Your task to perform on an android device: Open location settings Image 0: 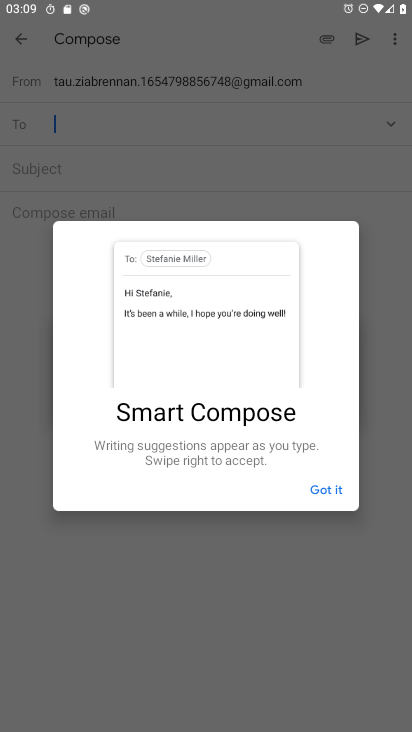
Step 0: press home button
Your task to perform on an android device: Open location settings Image 1: 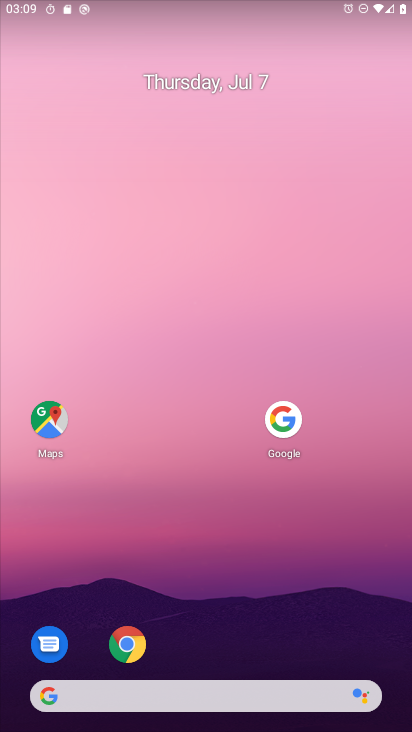
Step 1: drag from (182, 697) to (331, 92)
Your task to perform on an android device: Open location settings Image 2: 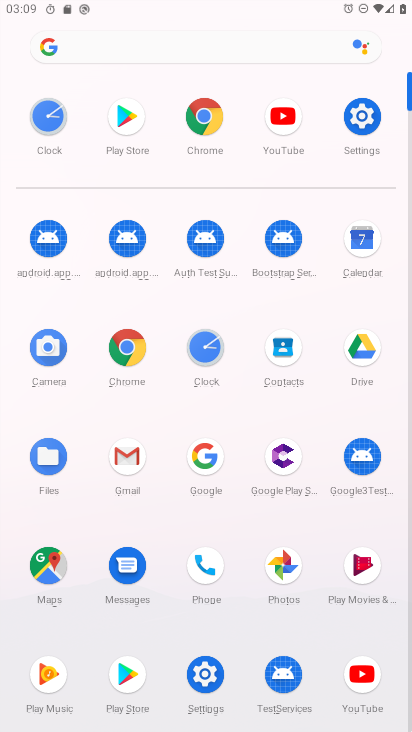
Step 2: click (359, 117)
Your task to perform on an android device: Open location settings Image 3: 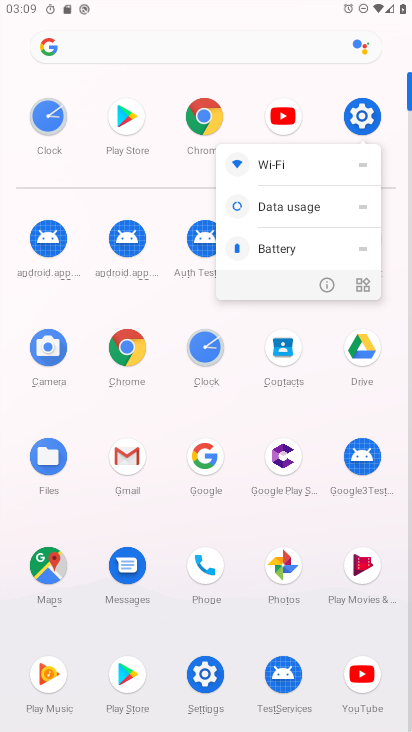
Step 3: click (365, 119)
Your task to perform on an android device: Open location settings Image 4: 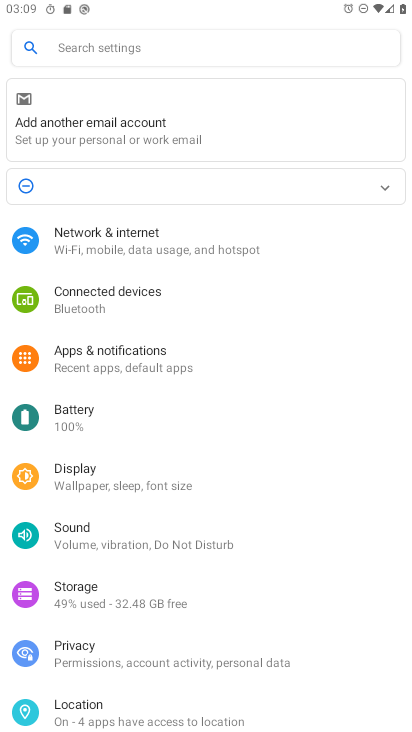
Step 4: drag from (163, 593) to (350, 46)
Your task to perform on an android device: Open location settings Image 5: 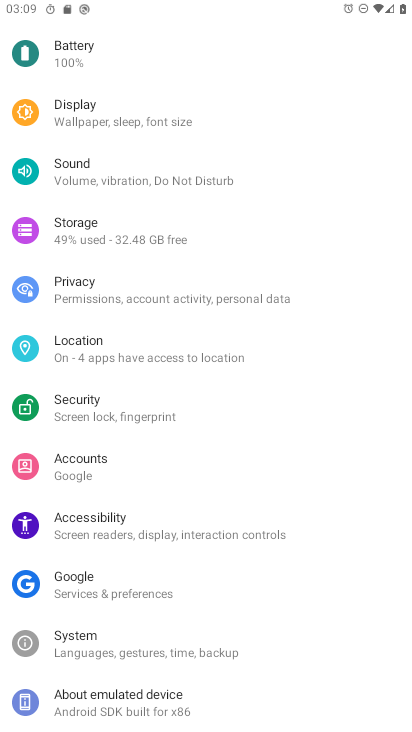
Step 5: click (106, 348)
Your task to perform on an android device: Open location settings Image 6: 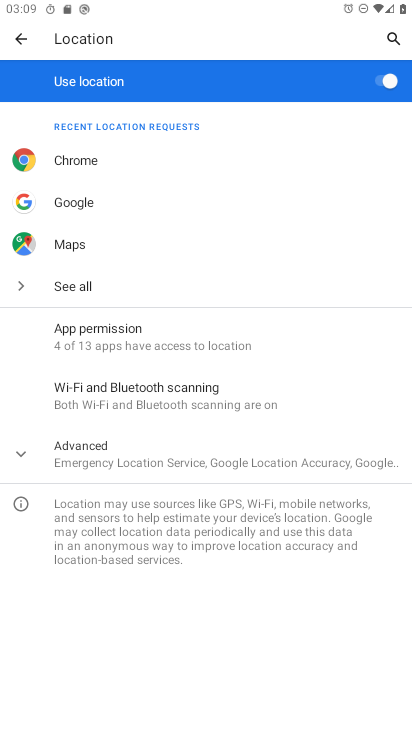
Step 6: task complete